Your task to perform on an android device: turn off picture-in-picture Image 0: 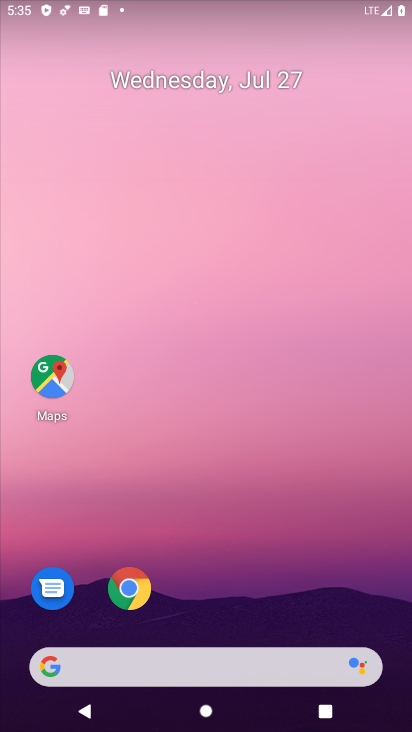
Step 0: drag from (238, 653) to (408, 17)
Your task to perform on an android device: turn off picture-in-picture Image 1: 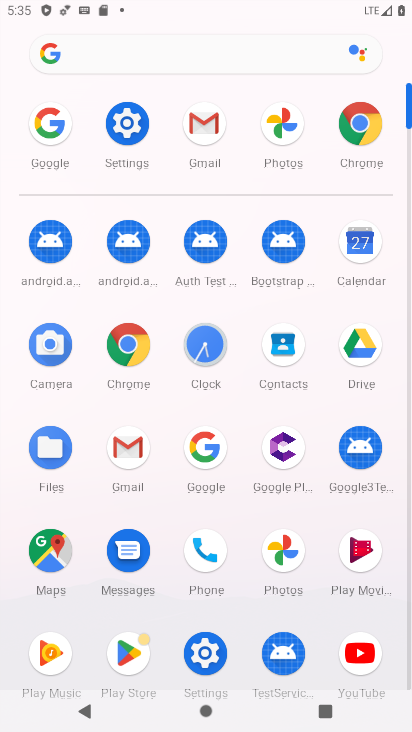
Step 1: click (128, 119)
Your task to perform on an android device: turn off picture-in-picture Image 2: 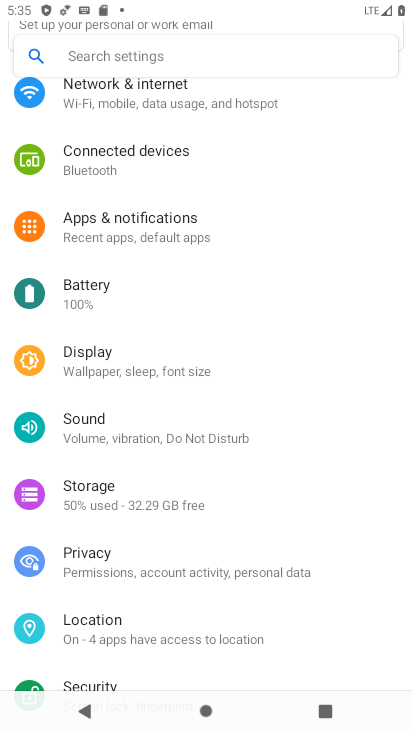
Step 2: drag from (143, 315) to (195, 193)
Your task to perform on an android device: turn off picture-in-picture Image 3: 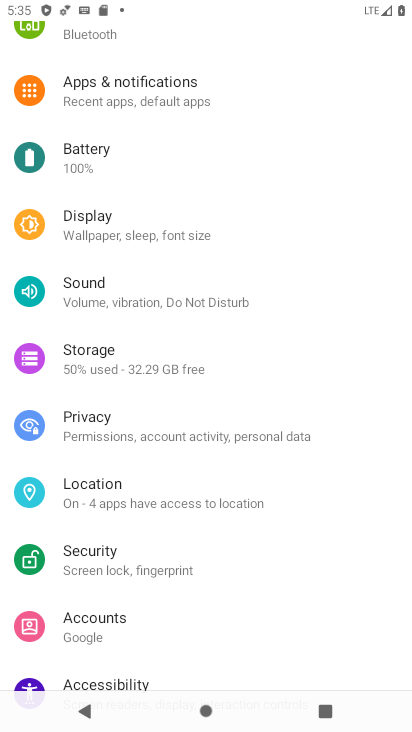
Step 3: drag from (265, 691) to (191, 183)
Your task to perform on an android device: turn off picture-in-picture Image 4: 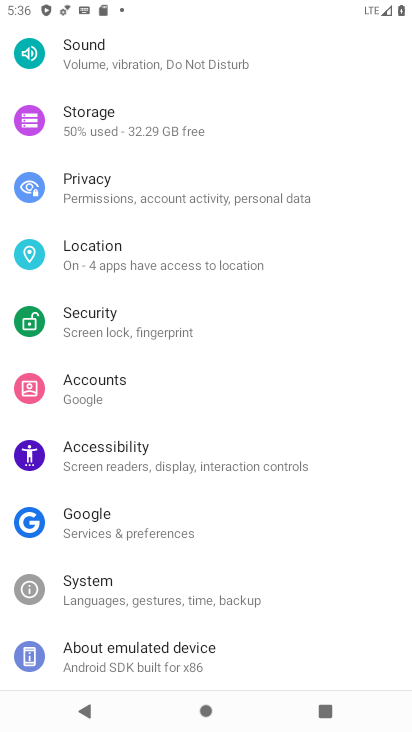
Step 4: drag from (187, 196) to (201, 567)
Your task to perform on an android device: turn off picture-in-picture Image 5: 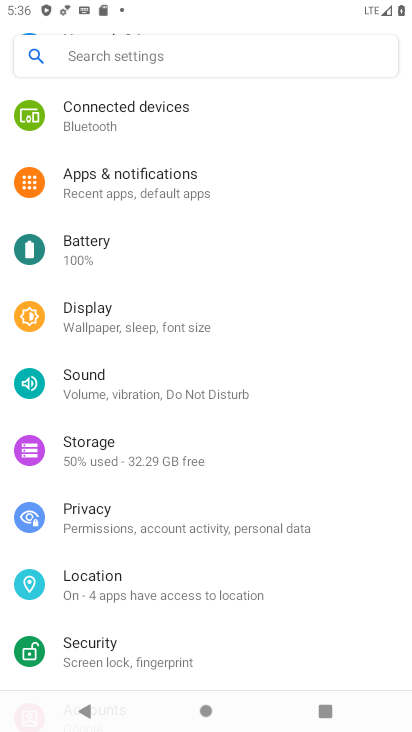
Step 5: click (160, 186)
Your task to perform on an android device: turn off picture-in-picture Image 6: 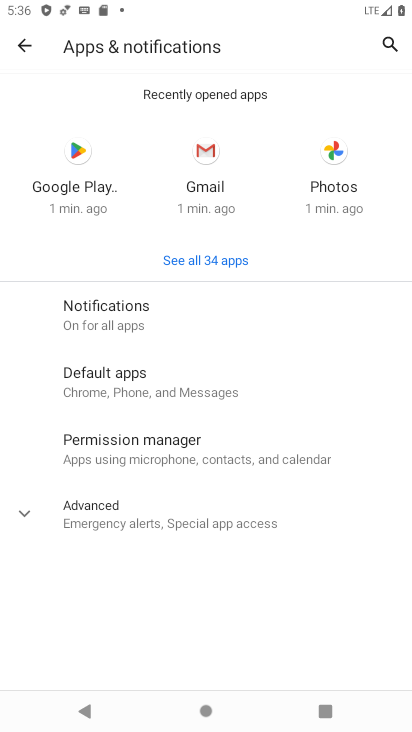
Step 6: click (170, 520)
Your task to perform on an android device: turn off picture-in-picture Image 7: 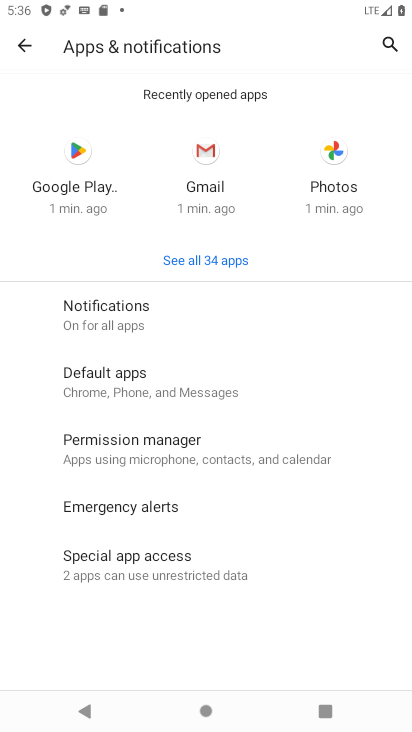
Step 7: click (145, 560)
Your task to perform on an android device: turn off picture-in-picture Image 8: 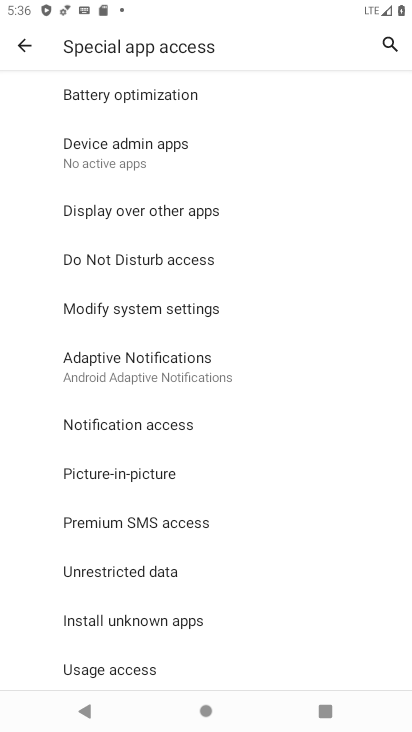
Step 8: click (91, 482)
Your task to perform on an android device: turn off picture-in-picture Image 9: 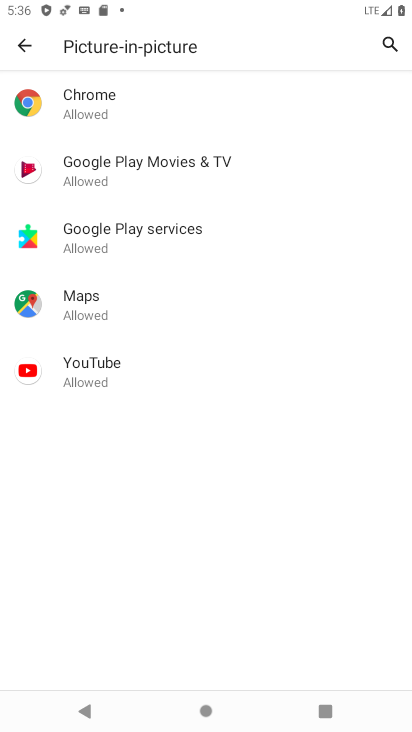
Step 9: click (85, 87)
Your task to perform on an android device: turn off picture-in-picture Image 10: 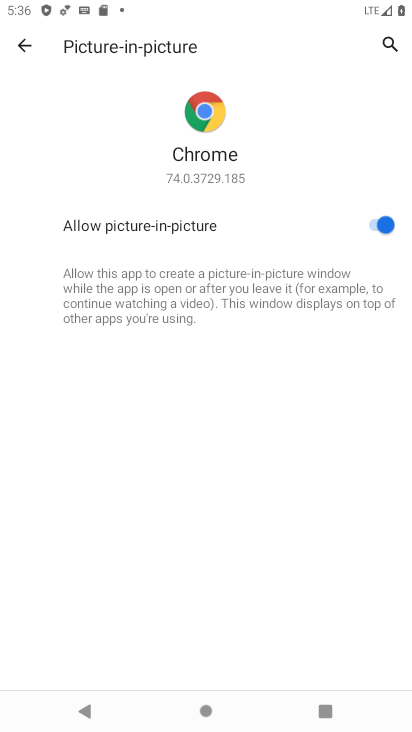
Step 10: click (373, 220)
Your task to perform on an android device: turn off picture-in-picture Image 11: 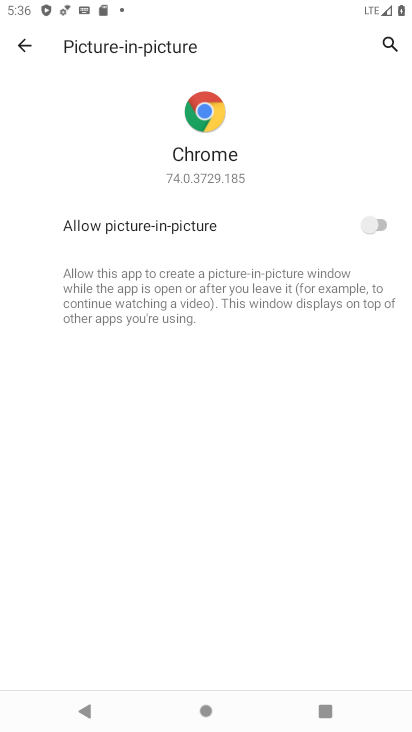
Step 11: press back button
Your task to perform on an android device: turn off picture-in-picture Image 12: 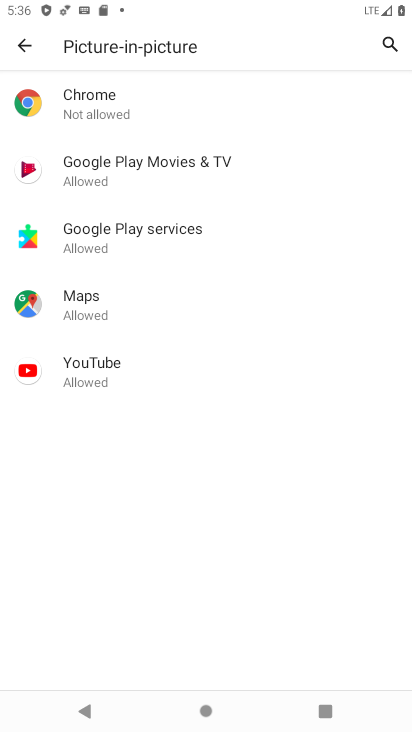
Step 12: click (131, 176)
Your task to perform on an android device: turn off picture-in-picture Image 13: 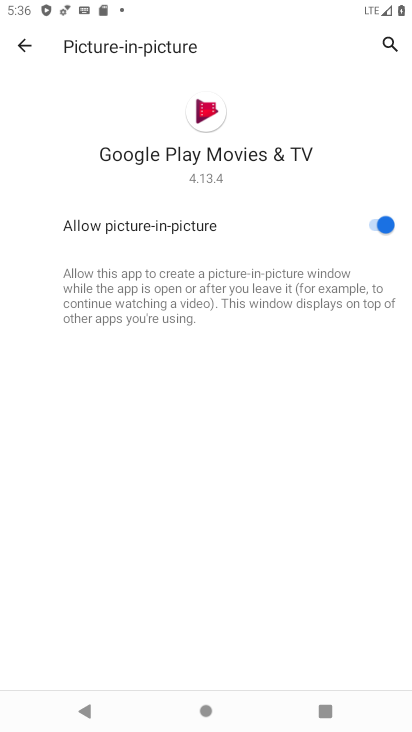
Step 13: click (378, 226)
Your task to perform on an android device: turn off picture-in-picture Image 14: 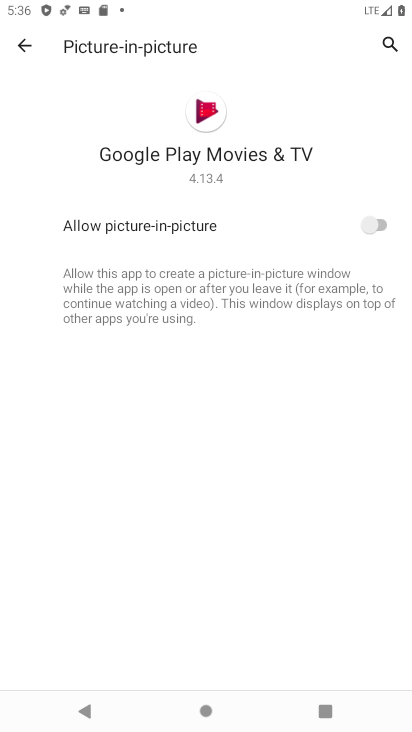
Step 14: press back button
Your task to perform on an android device: turn off picture-in-picture Image 15: 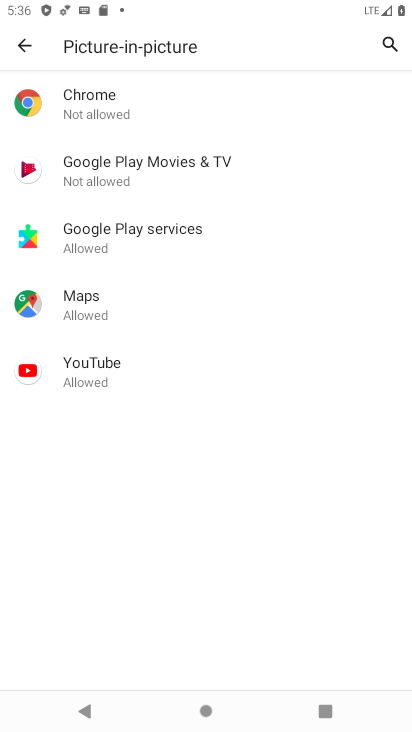
Step 15: click (84, 237)
Your task to perform on an android device: turn off picture-in-picture Image 16: 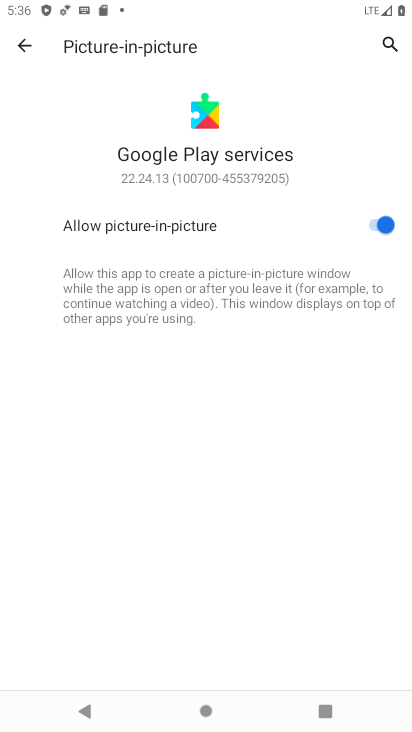
Step 16: click (372, 220)
Your task to perform on an android device: turn off picture-in-picture Image 17: 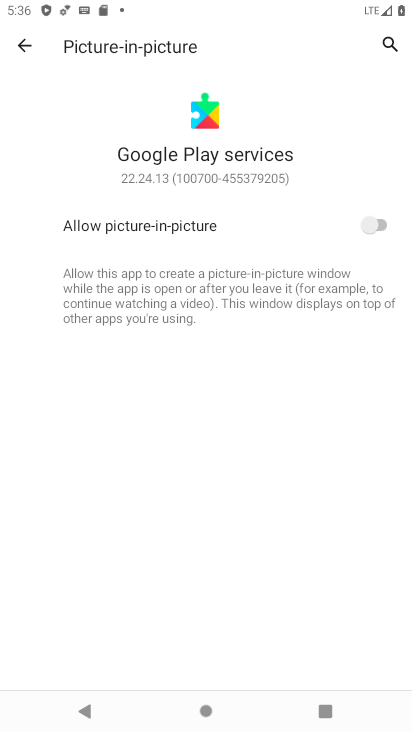
Step 17: press back button
Your task to perform on an android device: turn off picture-in-picture Image 18: 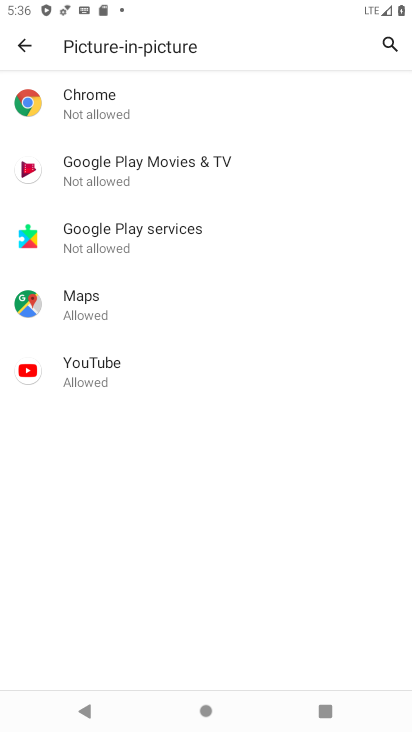
Step 18: click (121, 314)
Your task to perform on an android device: turn off picture-in-picture Image 19: 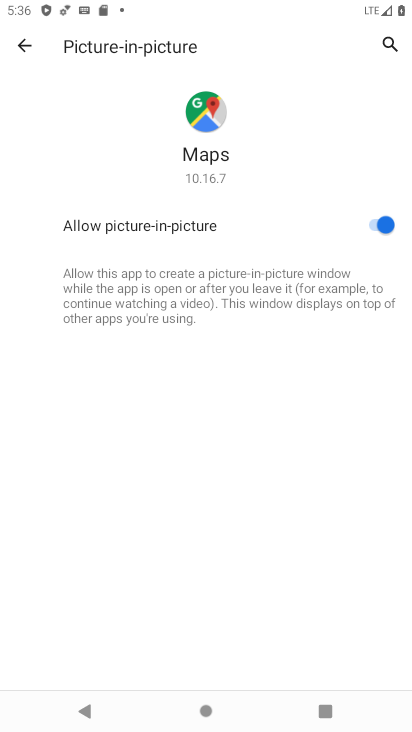
Step 19: click (385, 223)
Your task to perform on an android device: turn off picture-in-picture Image 20: 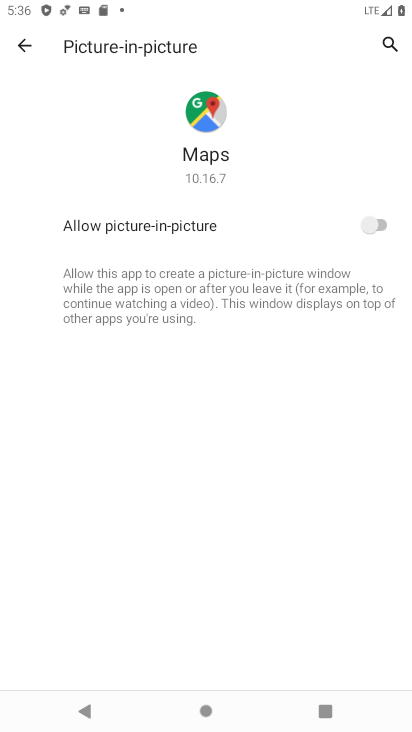
Step 20: press back button
Your task to perform on an android device: turn off picture-in-picture Image 21: 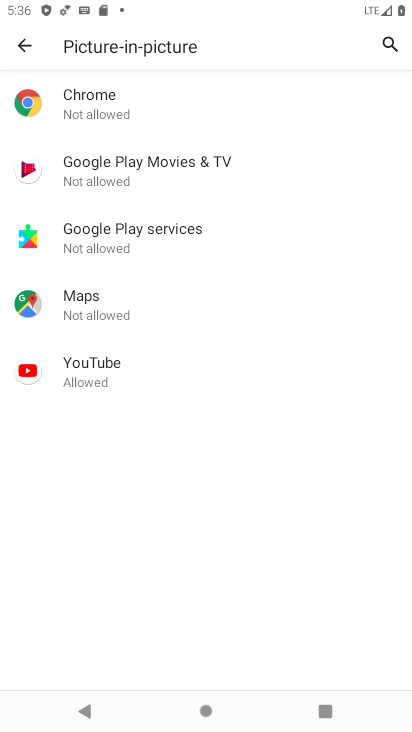
Step 21: click (83, 368)
Your task to perform on an android device: turn off picture-in-picture Image 22: 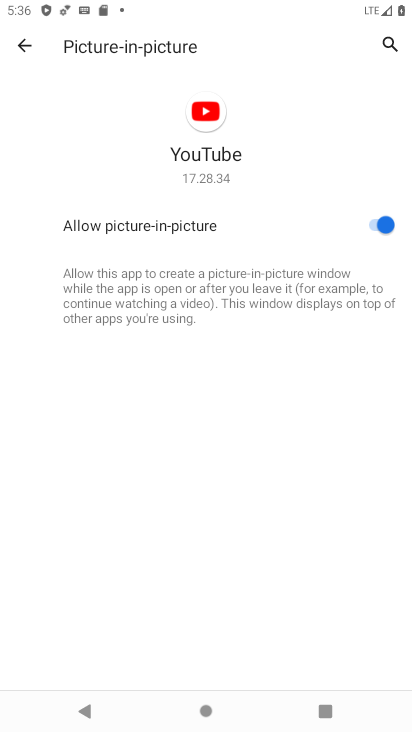
Step 22: click (377, 221)
Your task to perform on an android device: turn off picture-in-picture Image 23: 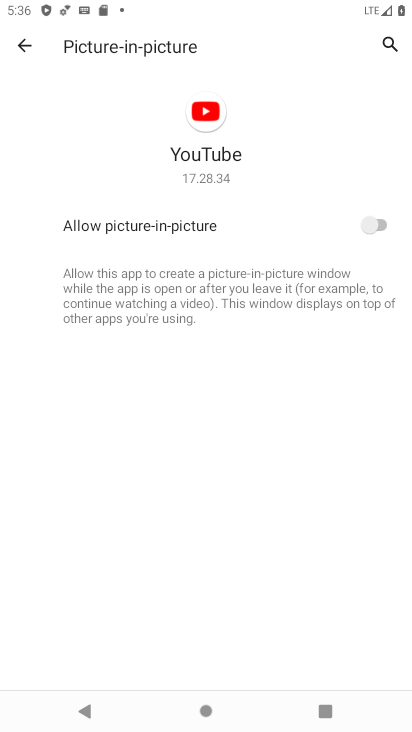
Step 23: task complete